Your task to perform on an android device: Open Reddit.com Image 0: 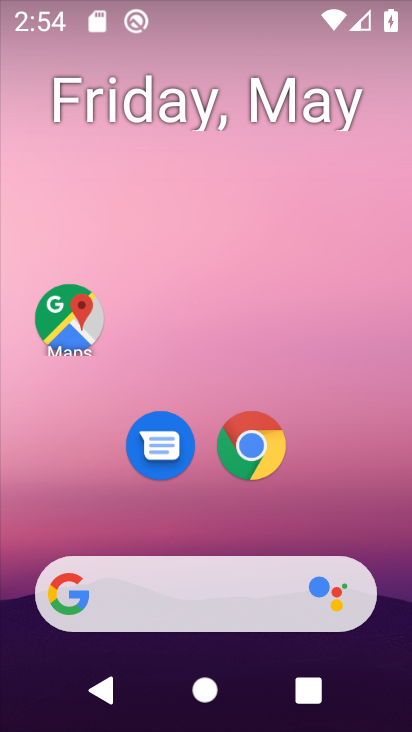
Step 0: drag from (241, 524) to (351, 148)
Your task to perform on an android device: Open Reddit.com Image 1: 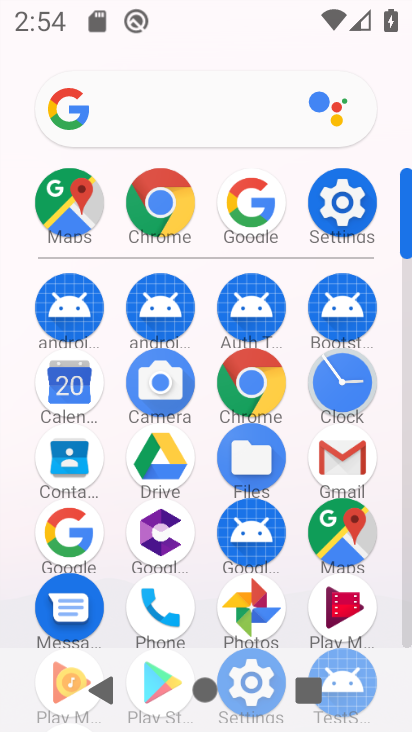
Step 1: click (186, 100)
Your task to perform on an android device: Open Reddit.com Image 2: 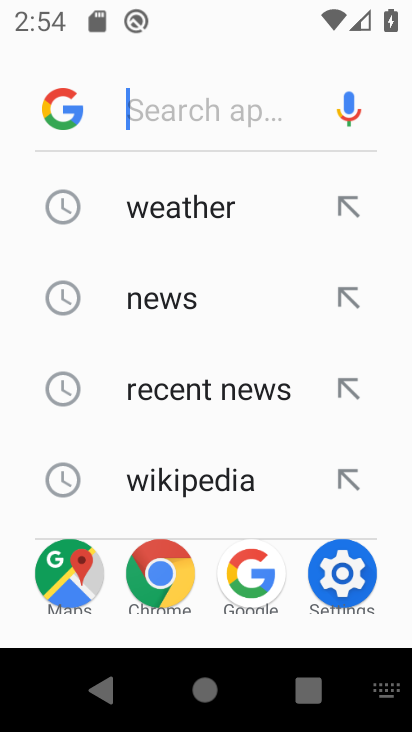
Step 2: type "Reddit.com"
Your task to perform on an android device: Open Reddit.com Image 3: 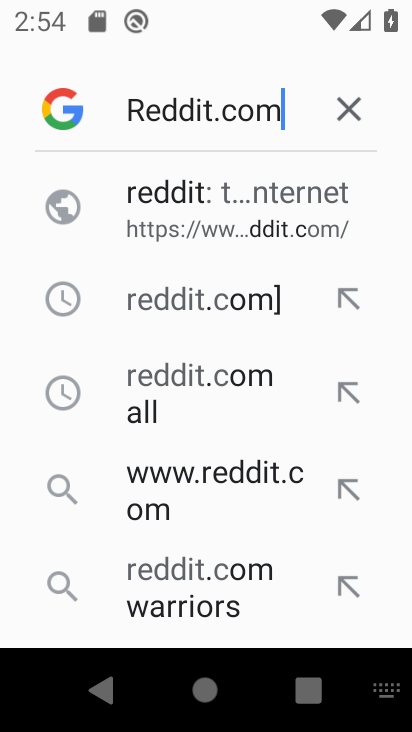
Step 3: type ""
Your task to perform on an android device: Open Reddit.com Image 4: 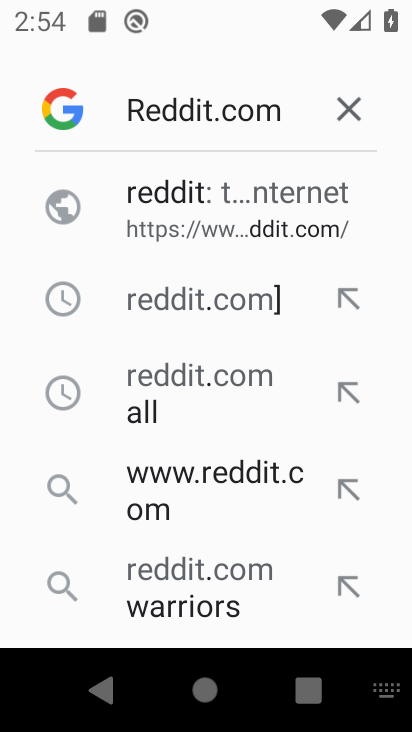
Step 4: click (160, 210)
Your task to perform on an android device: Open Reddit.com Image 5: 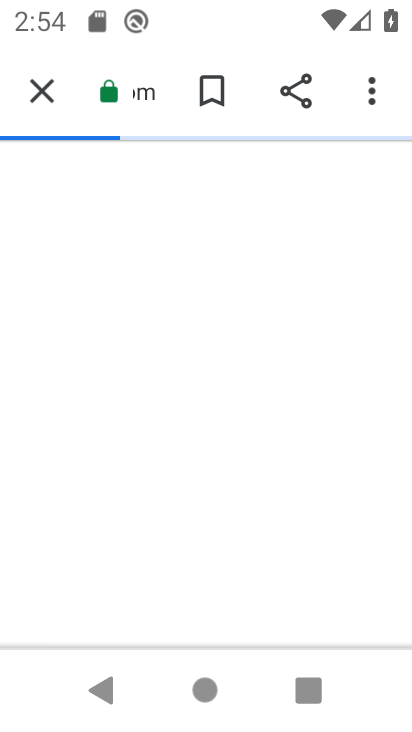
Step 5: task complete